Your task to perform on an android device: toggle notification dots Image 0: 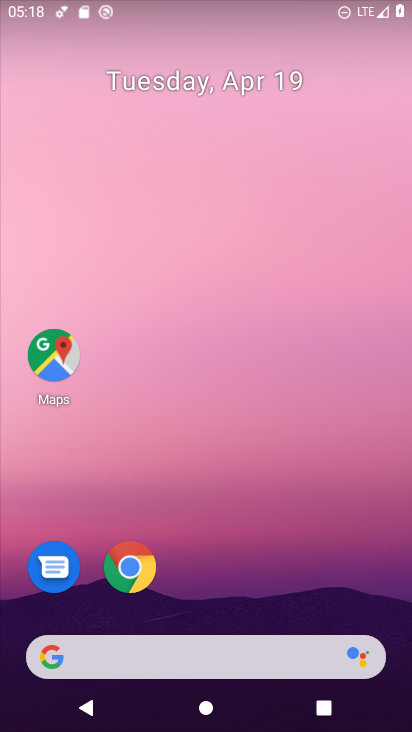
Step 0: drag from (307, 615) to (400, 33)
Your task to perform on an android device: toggle notification dots Image 1: 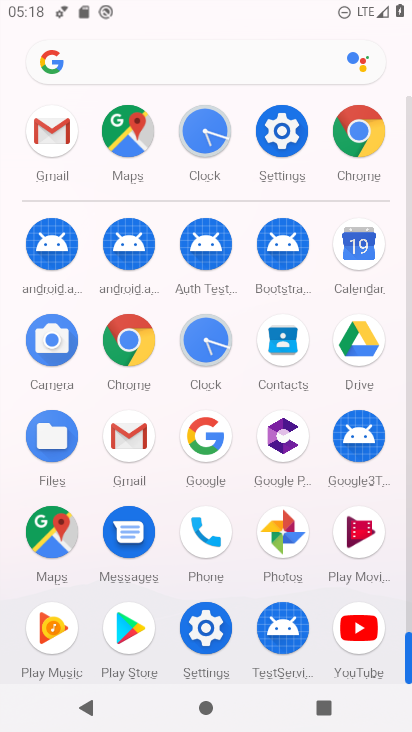
Step 1: click (204, 640)
Your task to perform on an android device: toggle notification dots Image 2: 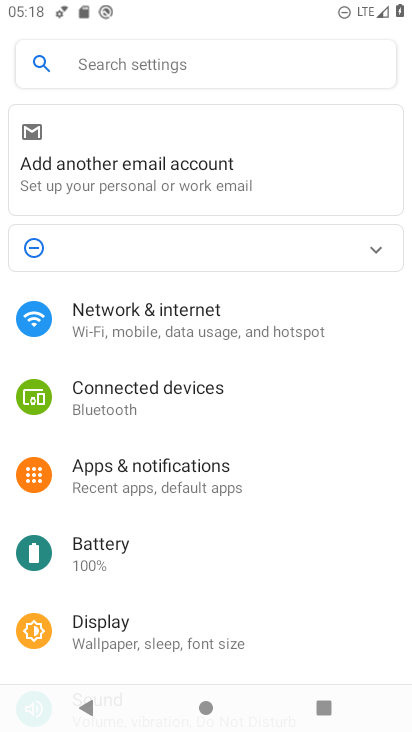
Step 2: drag from (198, 636) to (308, 181)
Your task to perform on an android device: toggle notification dots Image 3: 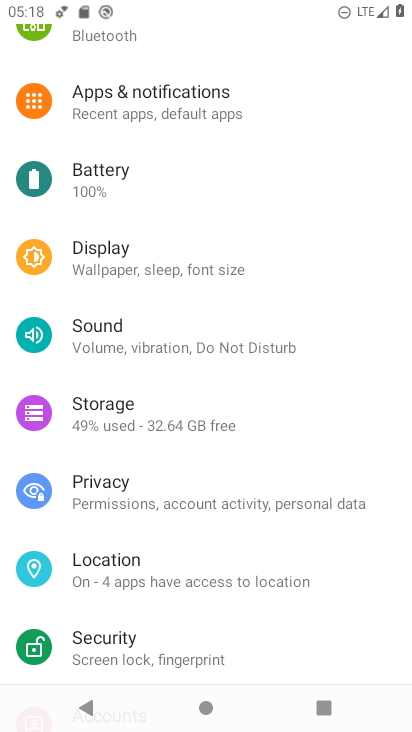
Step 3: drag from (183, 604) to (151, 692)
Your task to perform on an android device: toggle notification dots Image 4: 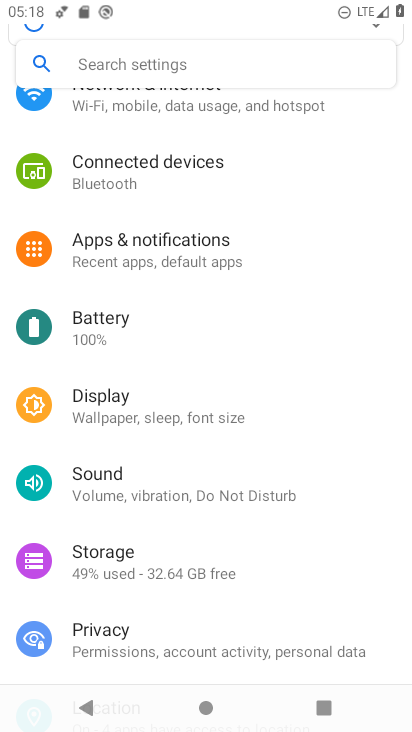
Step 4: click (188, 254)
Your task to perform on an android device: toggle notification dots Image 5: 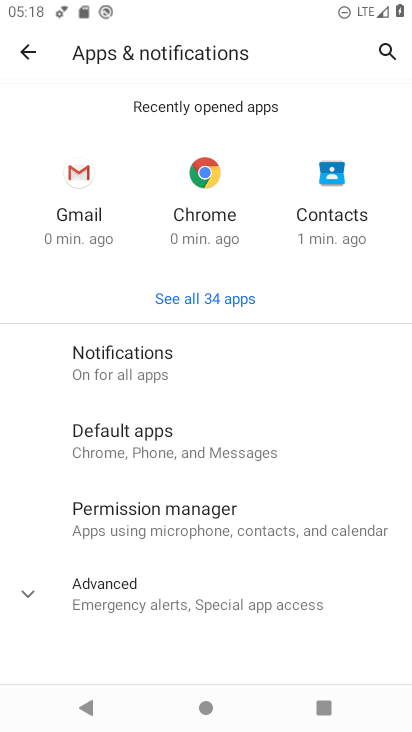
Step 5: drag from (202, 638) to (202, 289)
Your task to perform on an android device: toggle notification dots Image 6: 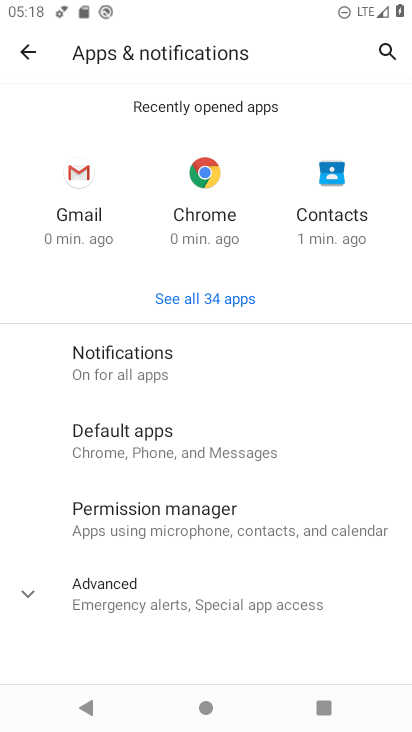
Step 6: click (163, 589)
Your task to perform on an android device: toggle notification dots Image 7: 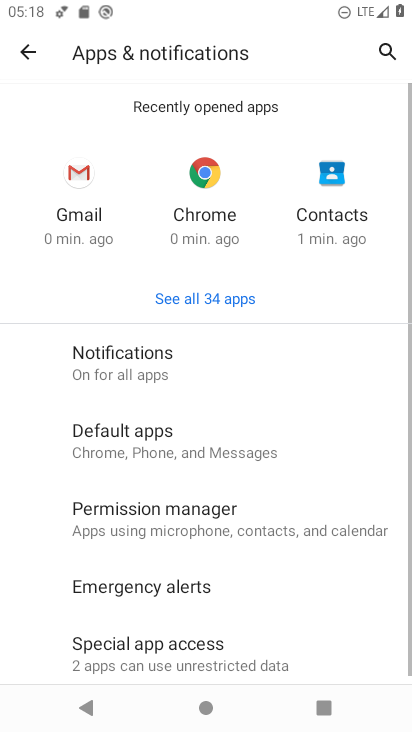
Step 7: drag from (183, 598) to (215, 222)
Your task to perform on an android device: toggle notification dots Image 8: 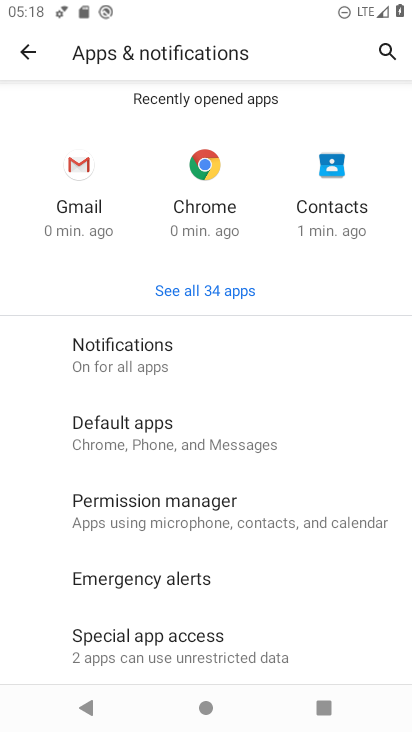
Step 8: click (196, 350)
Your task to perform on an android device: toggle notification dots Image 9: 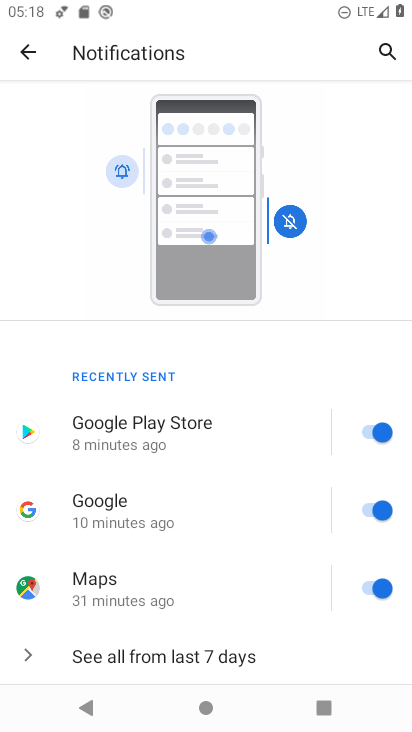
Step 9: drag from (228, 634) to (258, 89)
Your task to perform on an android device: toggle notification dots Image 10: 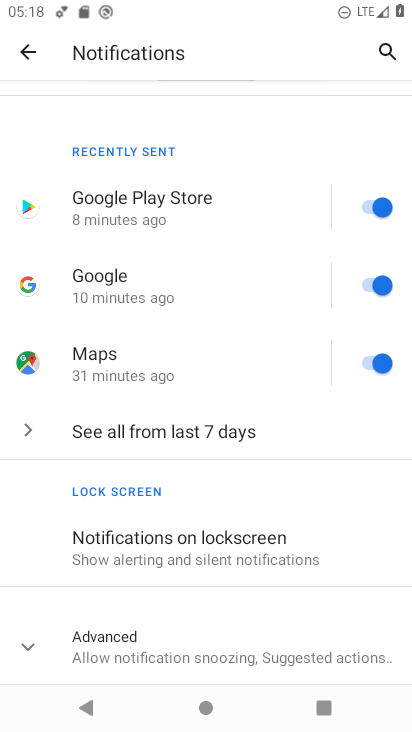
Step 10: click (217, 649)
Your task to perform on an android device: toggle notification dots Image 11: 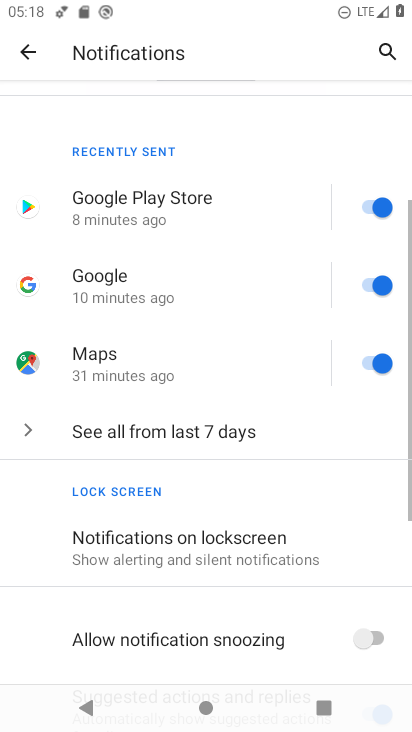
Step 11: drag from (217, 649) to (271, 214)
Your task to perform on an android device: toggle notification dots Image 12: 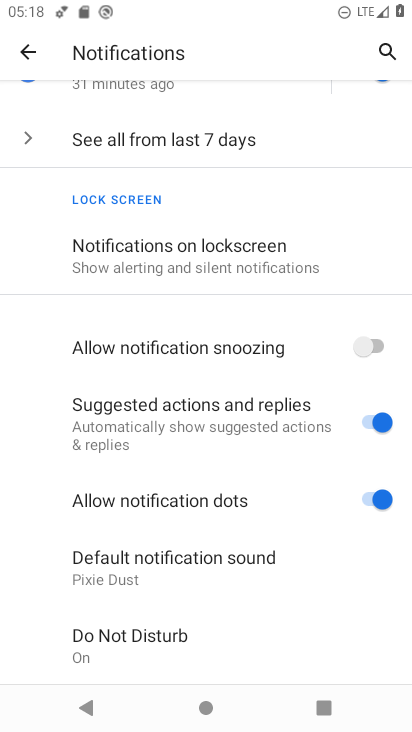
Step 12: click (363, 503)
Your task to perform on an android device: toggle notification dots Image 13: 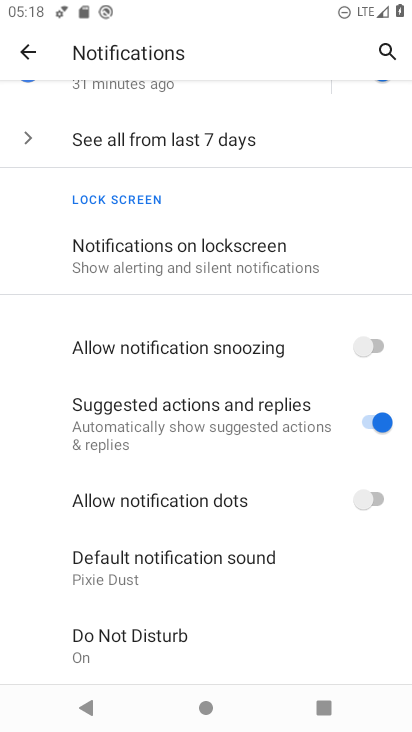
Step 13: task complete